Your task to perform on an android device: Clear the cart on ebay.com. Add bose soundlink mini to the cart on ebay.com Image 0: 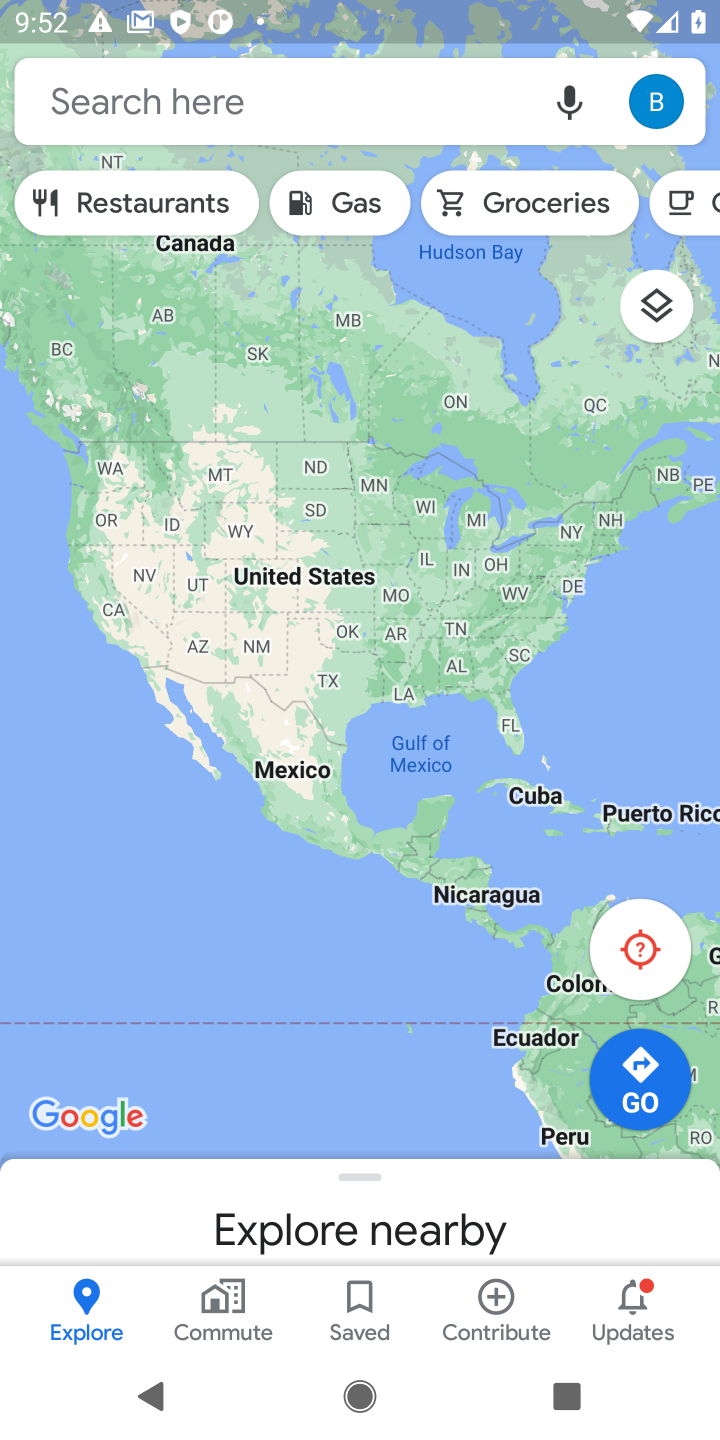
Step 0: press home button
Your task to perform on an android device: Clear the cart on ebay.com. Add bose soundlink mini to the cart on ebay.com Image 1: 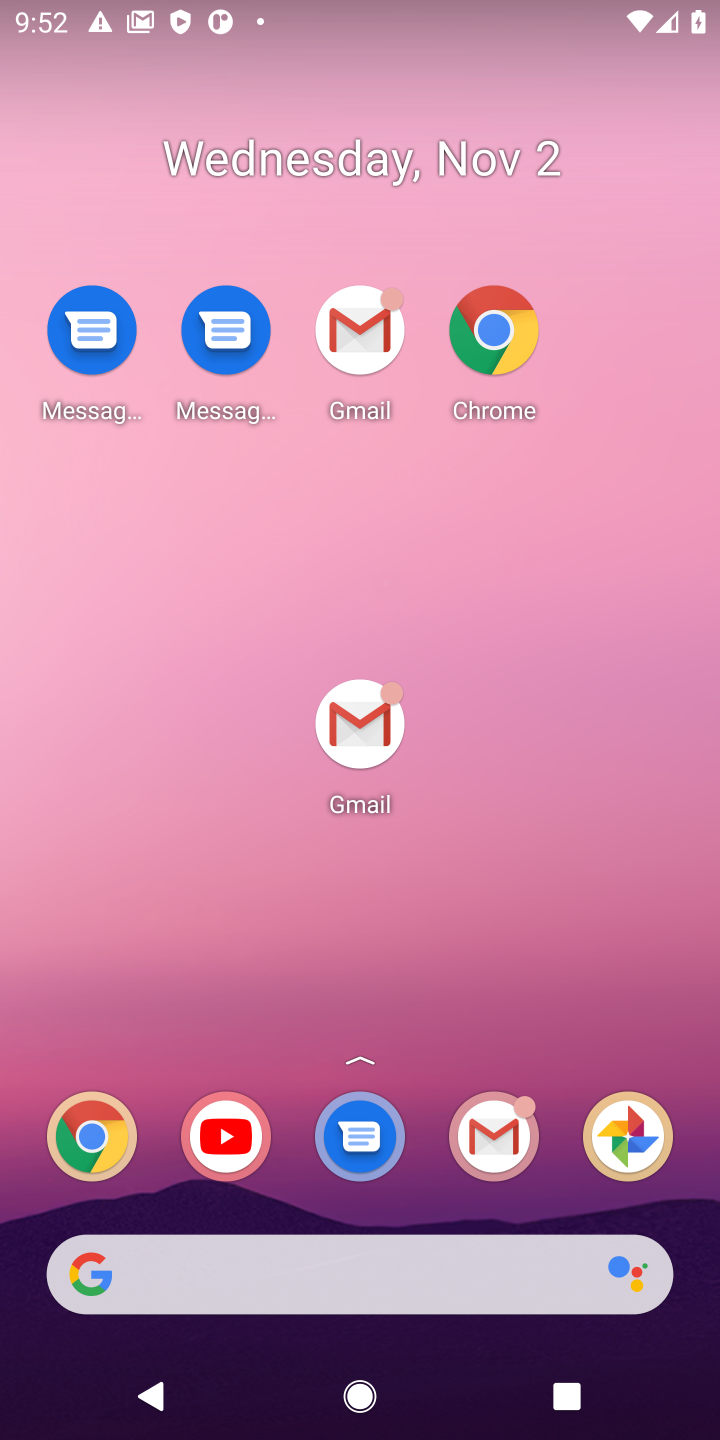
Step 1: drag from (273, 1183) to (268, 288)
Your task to perform on an android device: Clear the cart on ebay.com. Add bose soundlink mini to the cart on ebay.com Image 2: 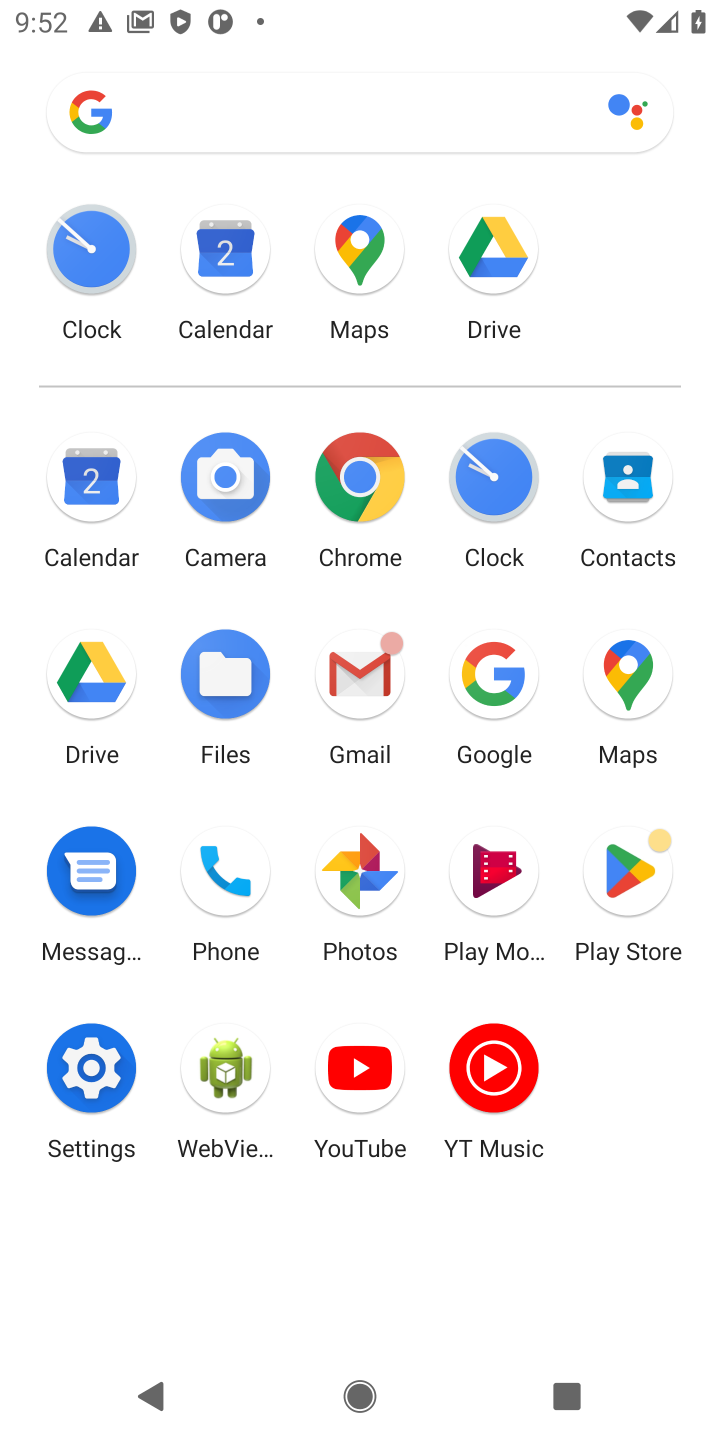
Step 2: click (467, 657)
Your task to perform on an android device: Clear the cart on ebay.com. Add bose soundlink mini to the cart on ebay.com Image 3: 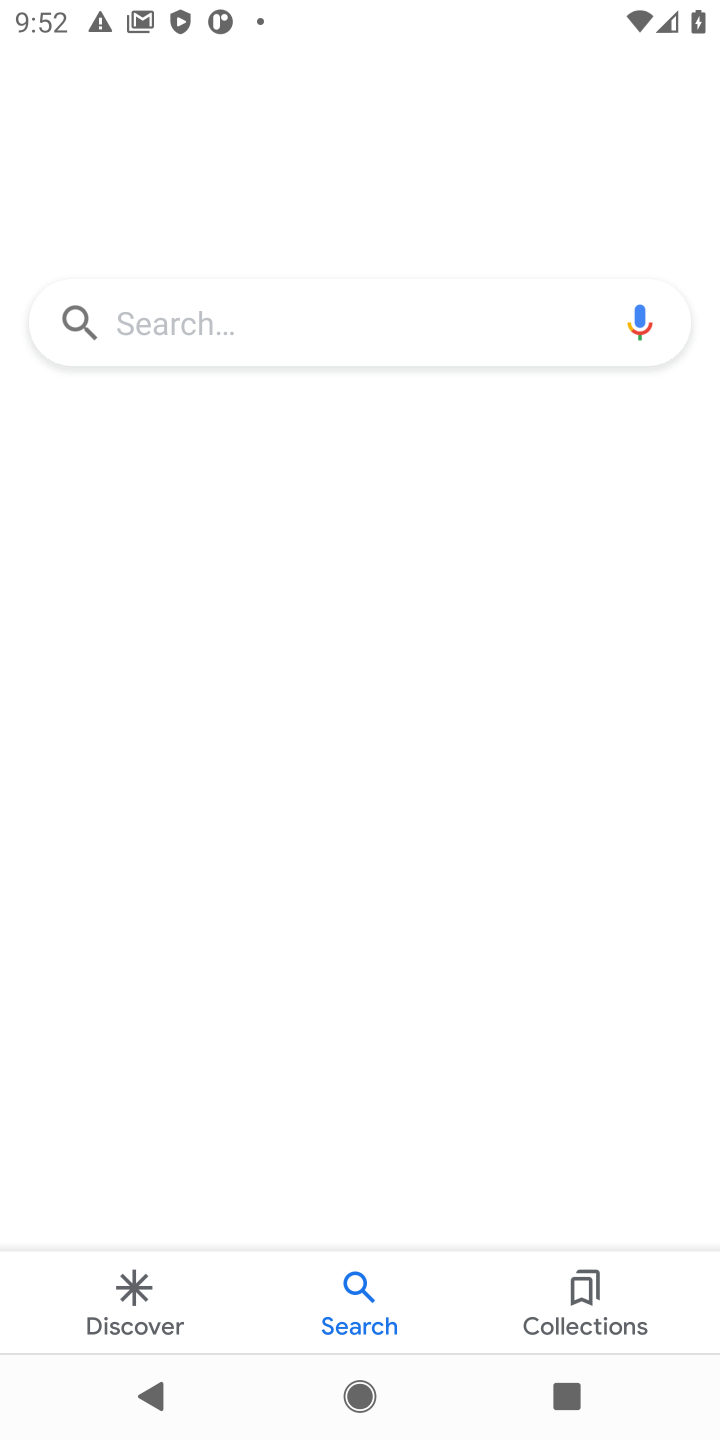
Step 3: click (347, 307)
Your task to perform on an android device: Clear the cart on ebay.com. Add bose soundlink mini to the cart on ebay.com Image 4: 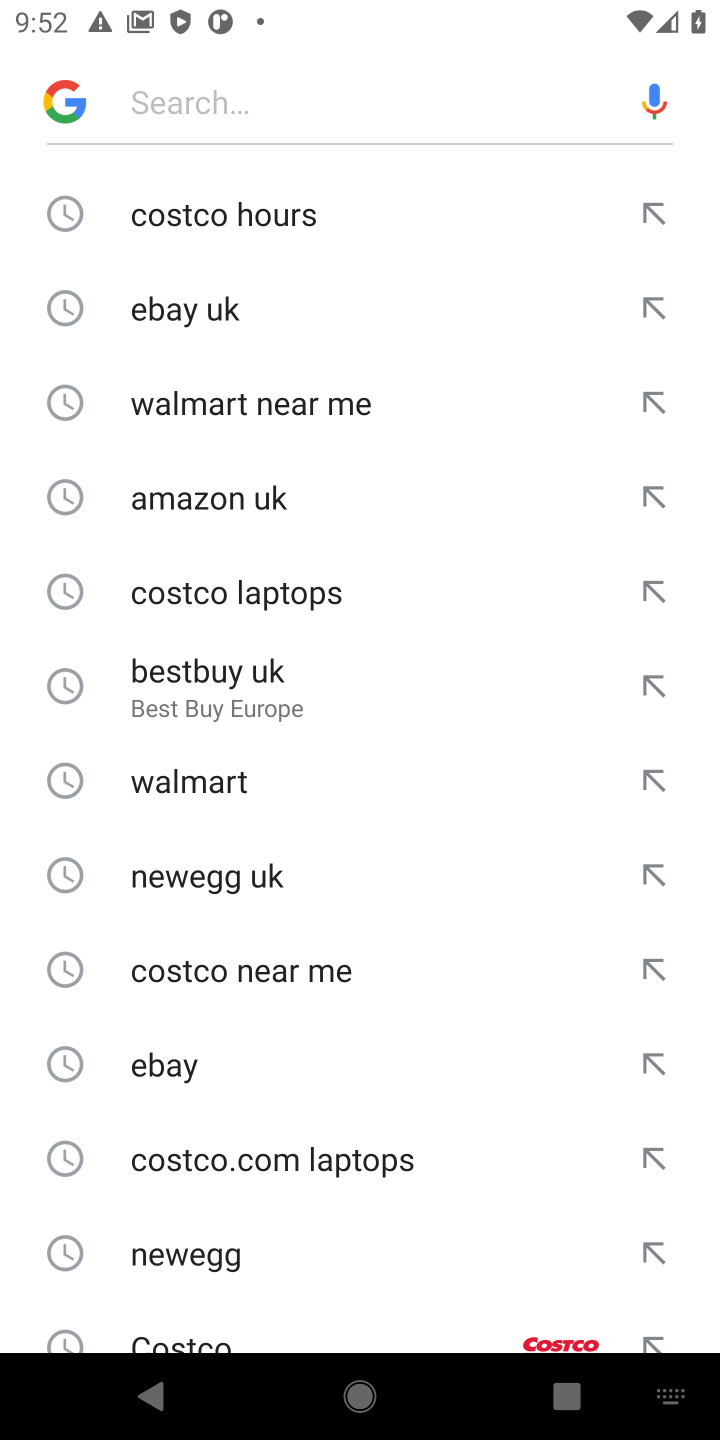
Step 4: click (164, 287)
Your task to perform on an android device: Clear the cart on ebay.com. Add bose soundlink mini to the cart on ebay.com Image 5: 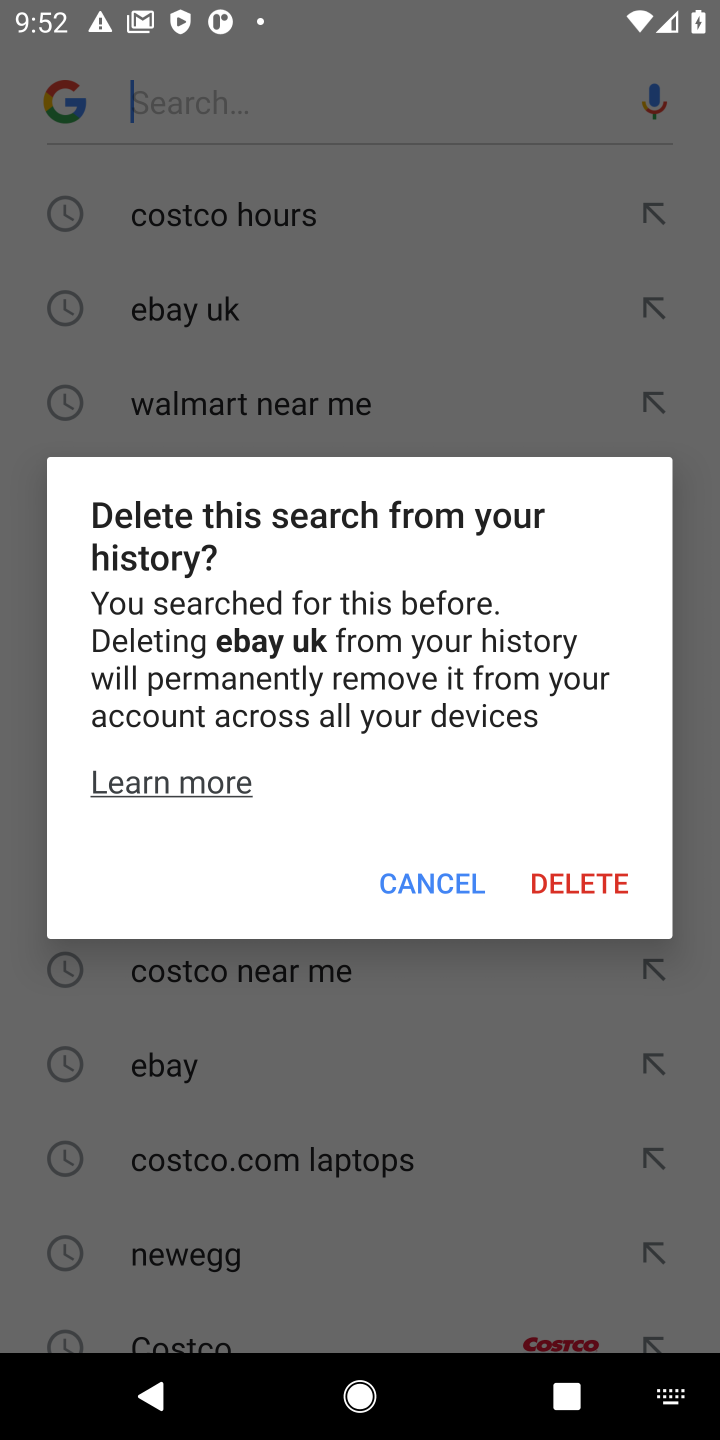
Step 5: click (487, 875)
Your task to perform on an android device: Clear the cart on ebay.com. Add bose soundlink mini to the cart on ebay.com Image 6: 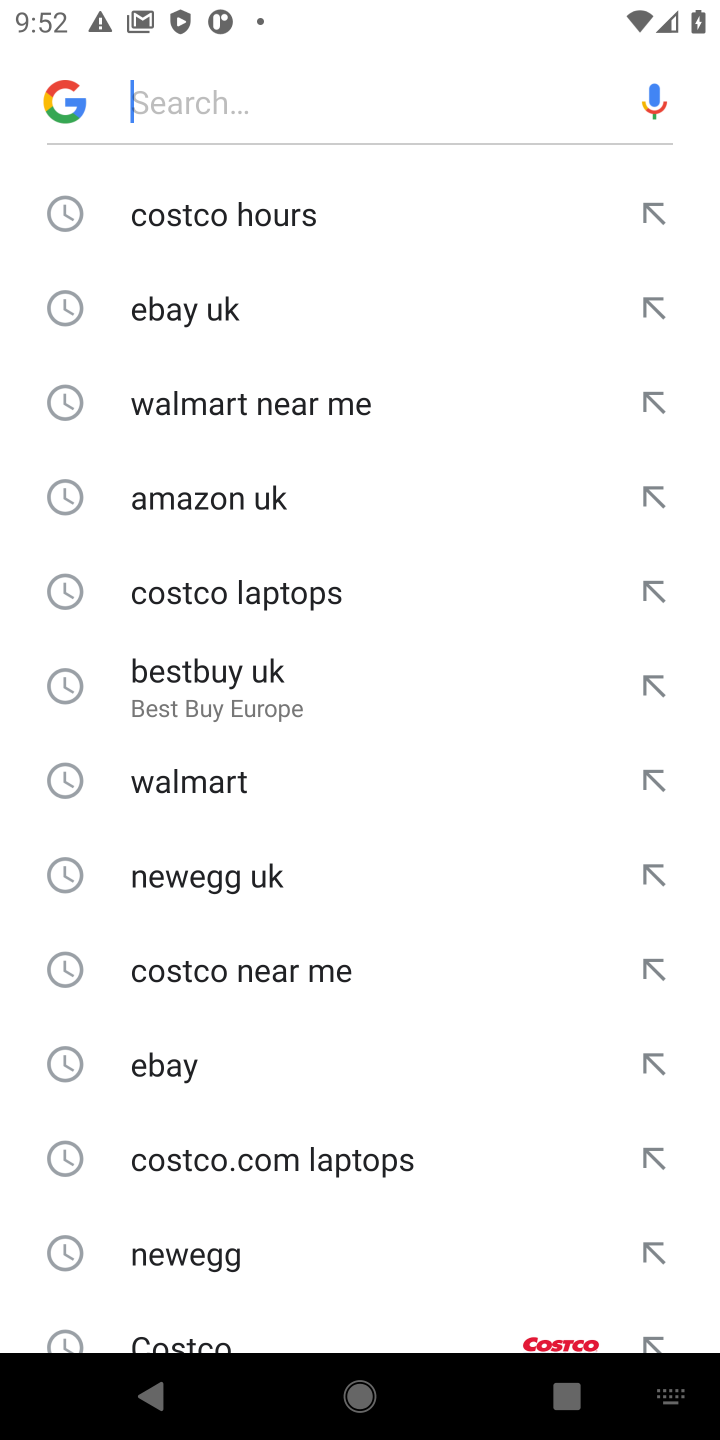
Step 6: click (293, 107)
Your task to perform on an android device: Clear the cart on ebay.com. Add bose soundlink mini to the cart on ebay.com Image 7: 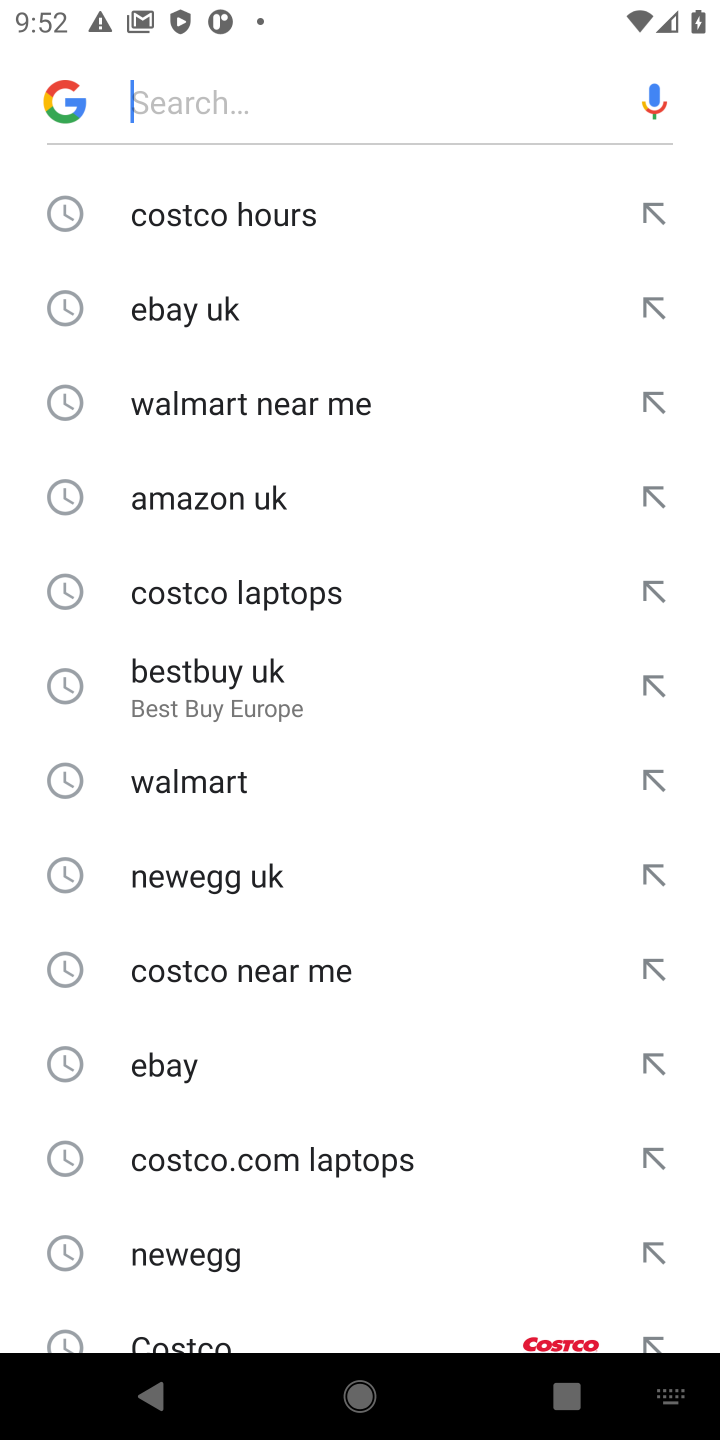
Step 7: type "ebay "
Your task to perform on an android device: Clear the cart on ebay.com. Add bose soundlink mini to the cart on ebay.com Image 8: 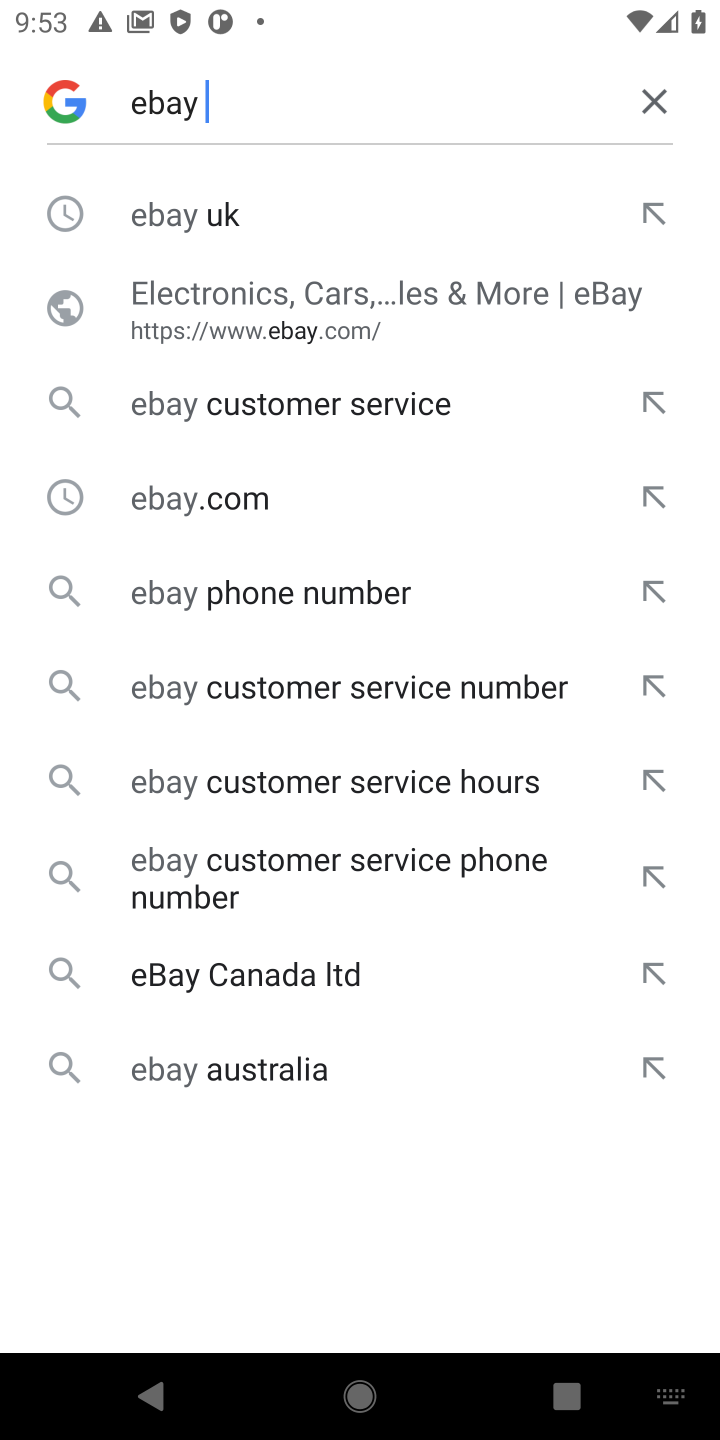
Step 8: click (214, 498)
Your task to perform on an android device: Clear the cart on ebay.com. Add bose soundlink mini to the cart on ebay.com Image 9: 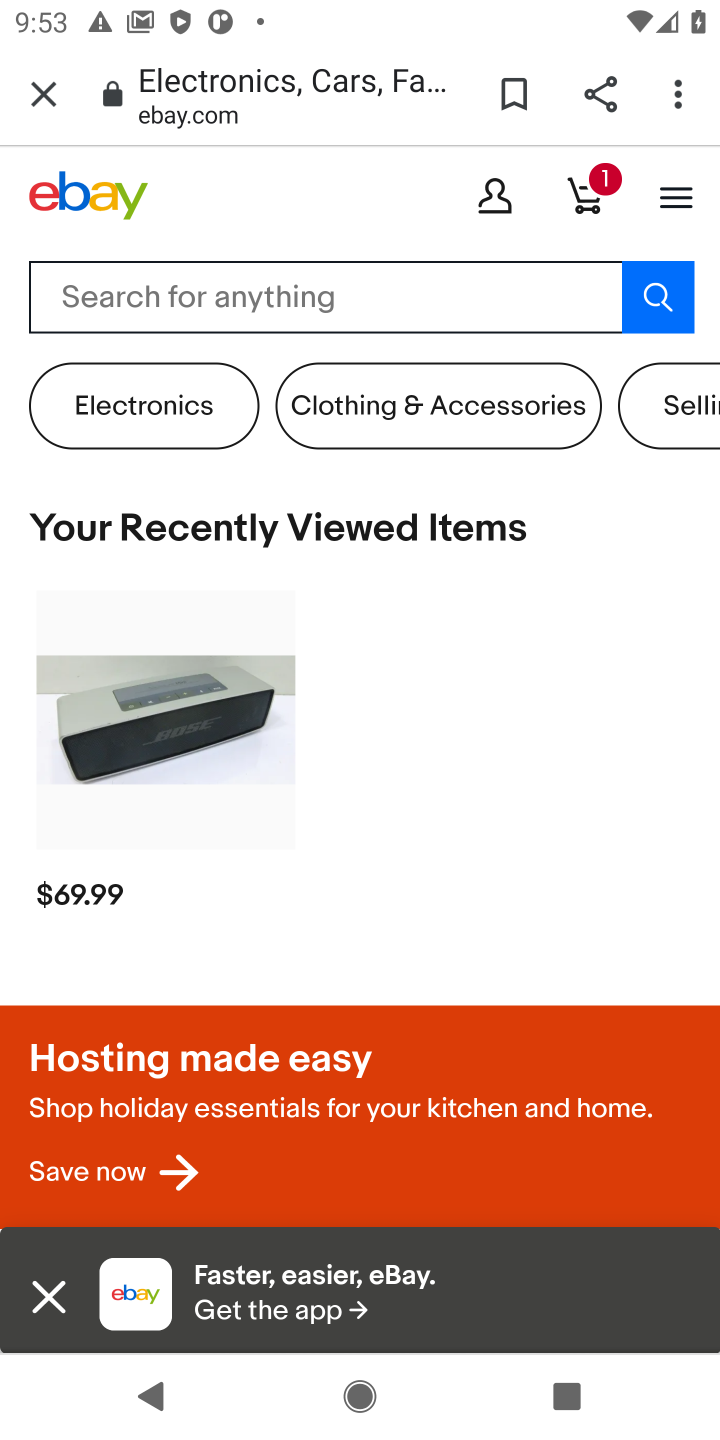
Step 9: click (401, 286)
Your task to perform on an android device: Clear the cart on ebay.com. Add bose soundlink mini to the cart on ebay.com Image 10: 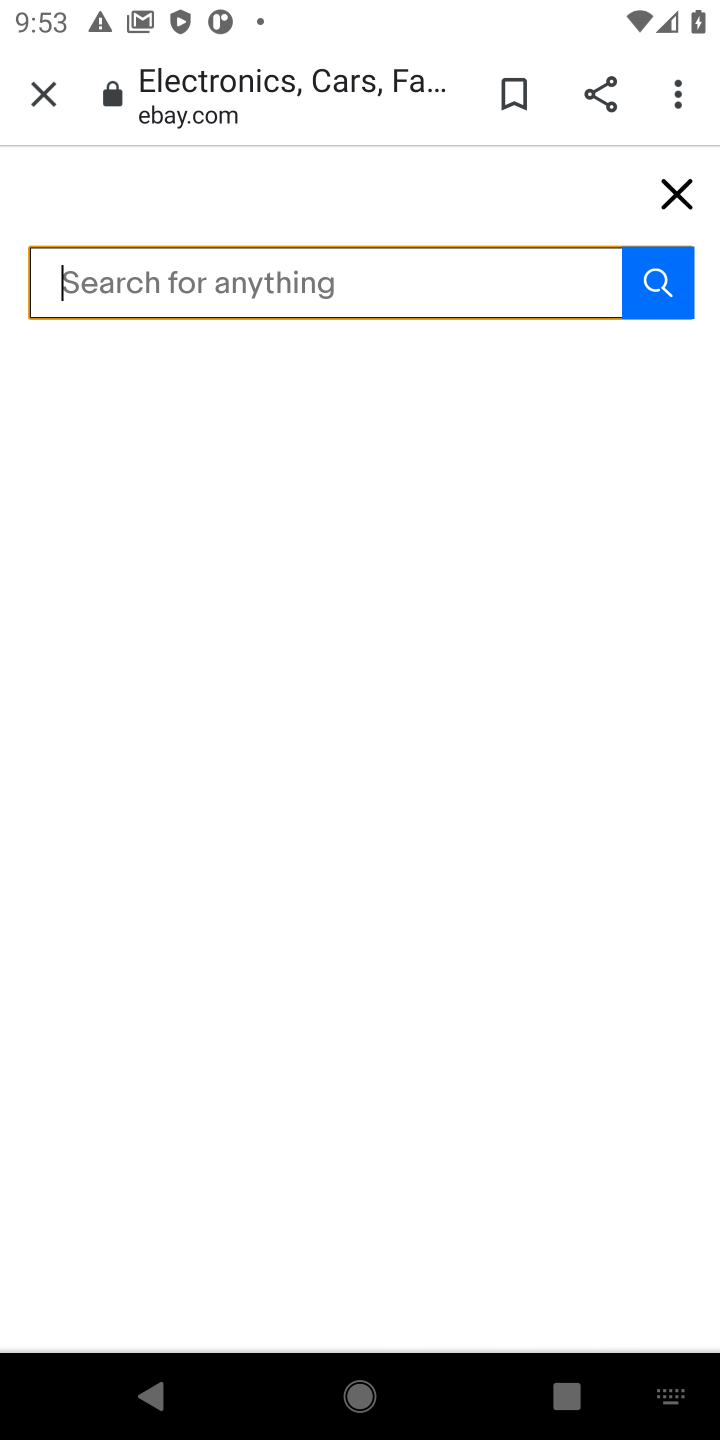
Step 10: type " bose soundlink  "
Your task to perform on an android device: Clear the cart on ebay.com. Add bose soundlink mini to the cart on ebay.com Image 11: 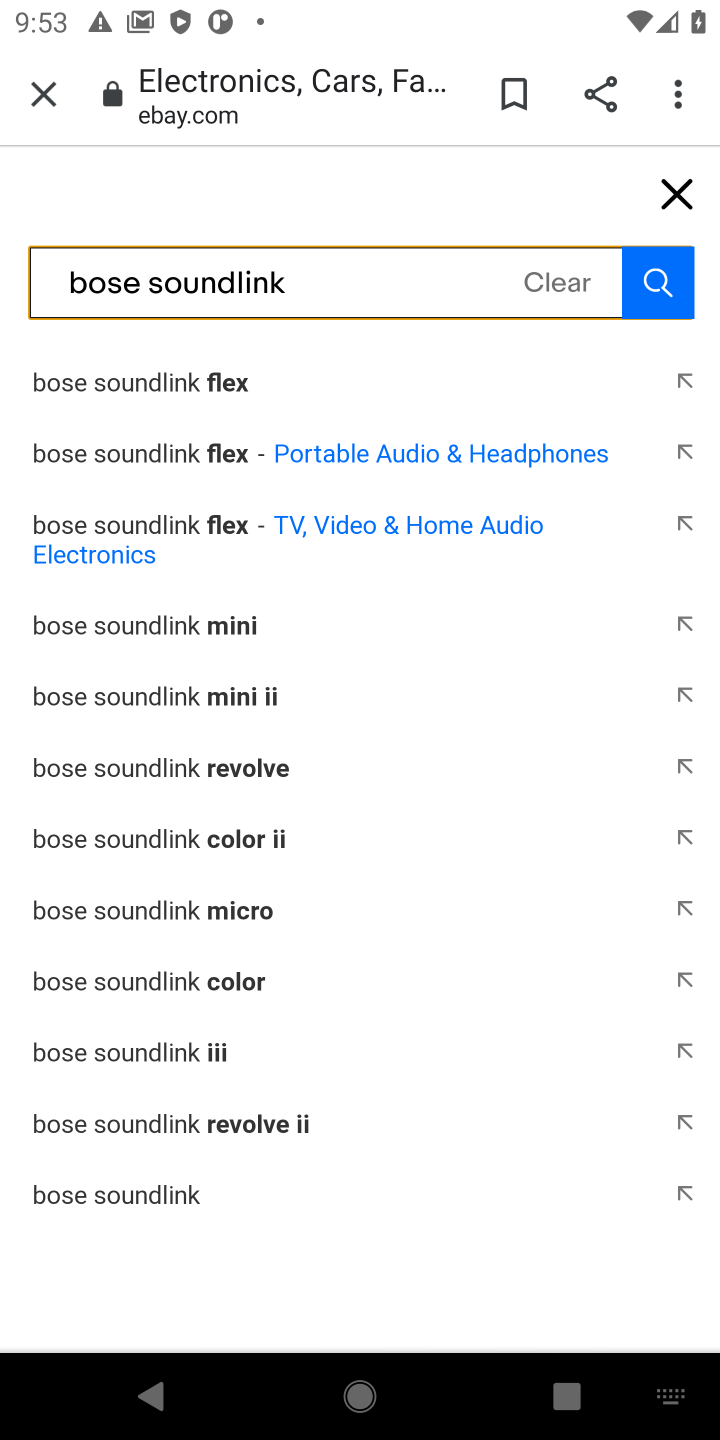
Step 11: click (131, 377)
Your task to perform on an android device: Clear the cart on ebay.com. Add bose soundlink mini to the cart on ebay.com Image 12: 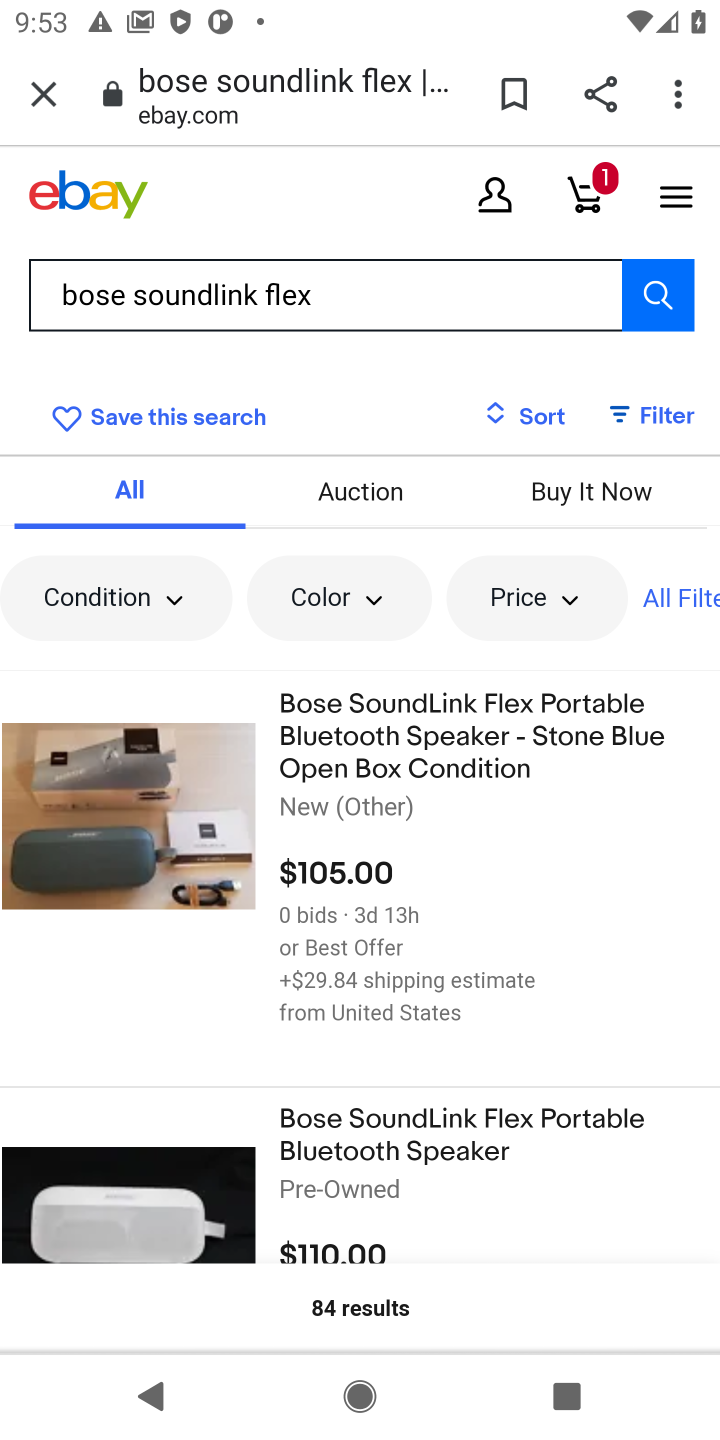
Step 12: click (365, 702)
Your task to perform on an android device: Clear the cart on ebay.com. Add bose soundlink mini to the cart on ebay.com Image 13: 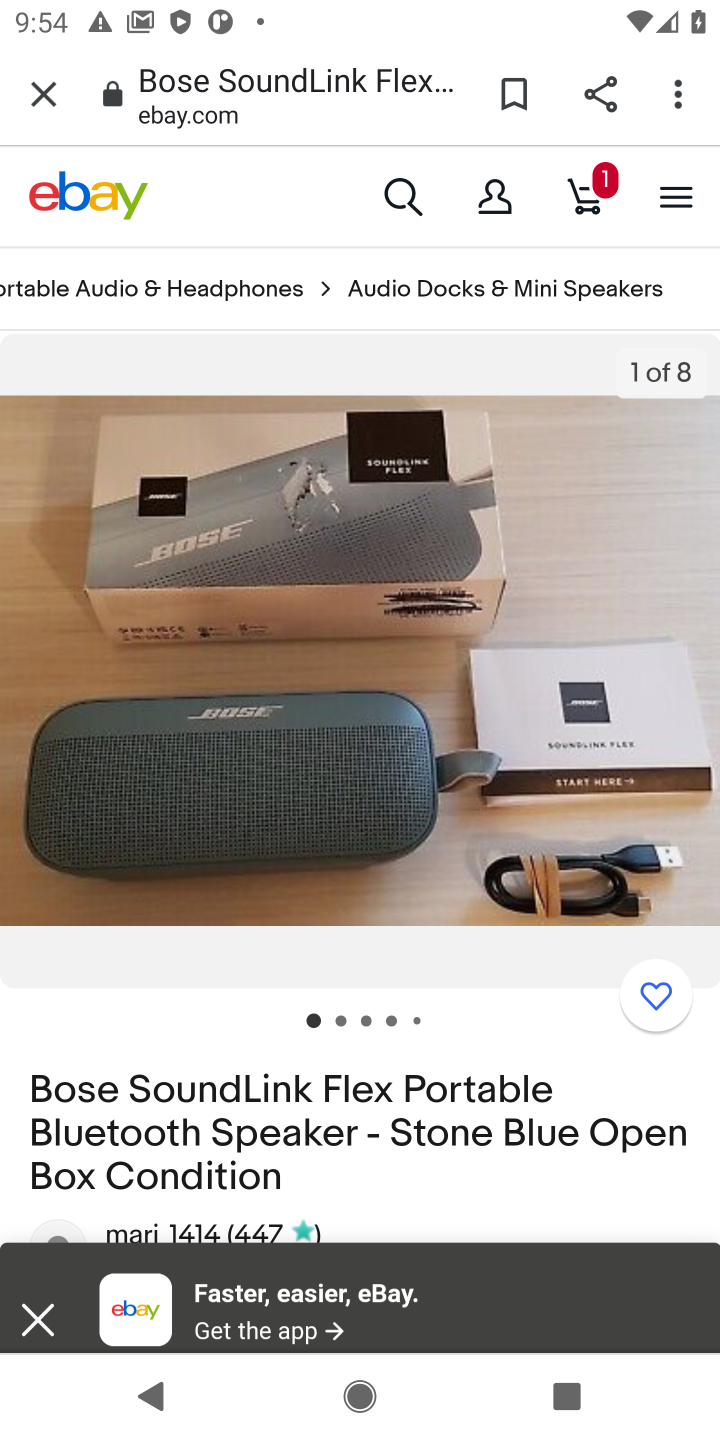
Step 13: drag from (288, 1152) to (254, 430)
Your task to perform on an android device: Clear the cart on ebay.com. Add bose soundlink mini to the cart on ebay.com Image 14: 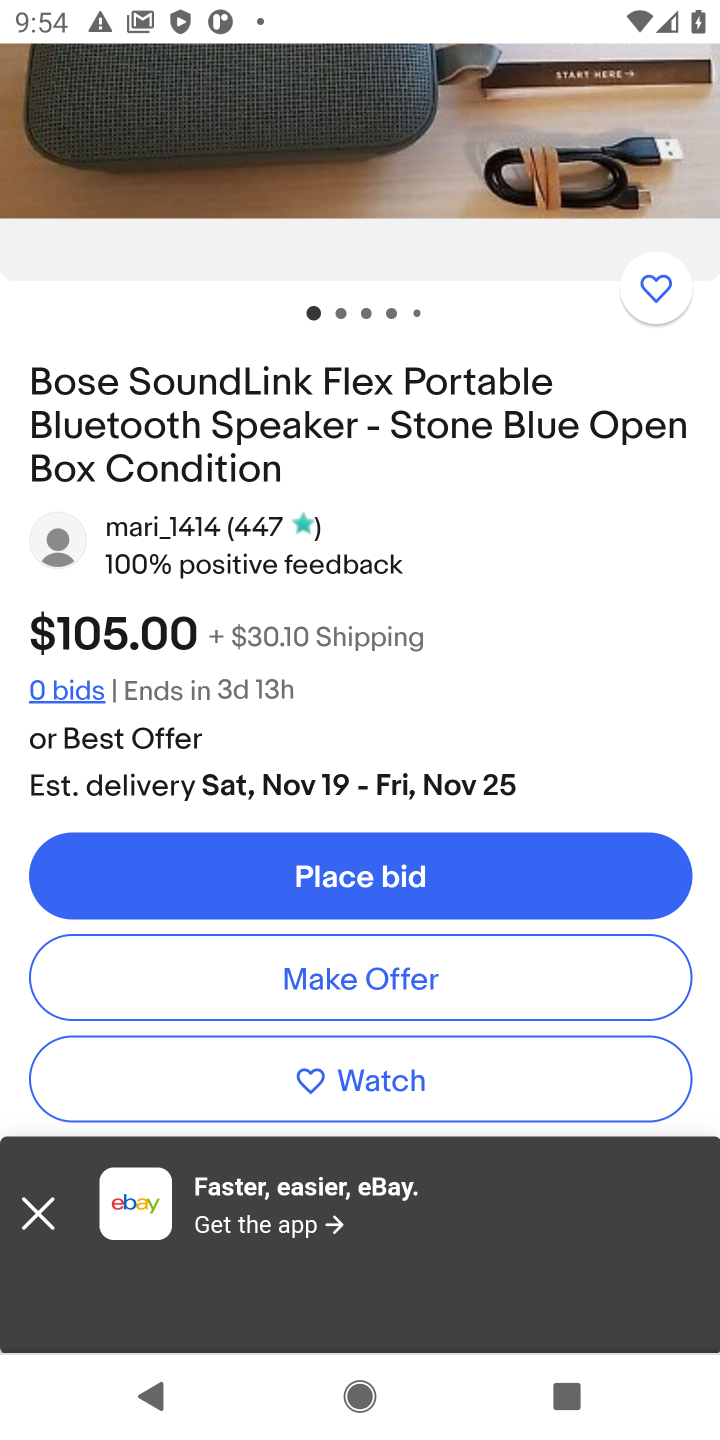
Step 14: click (15, 1216)
Your task to perform on an android device: Clear the cart on ebay.com. Add bose soundlink mini to the cart on ebay.com Image 15: 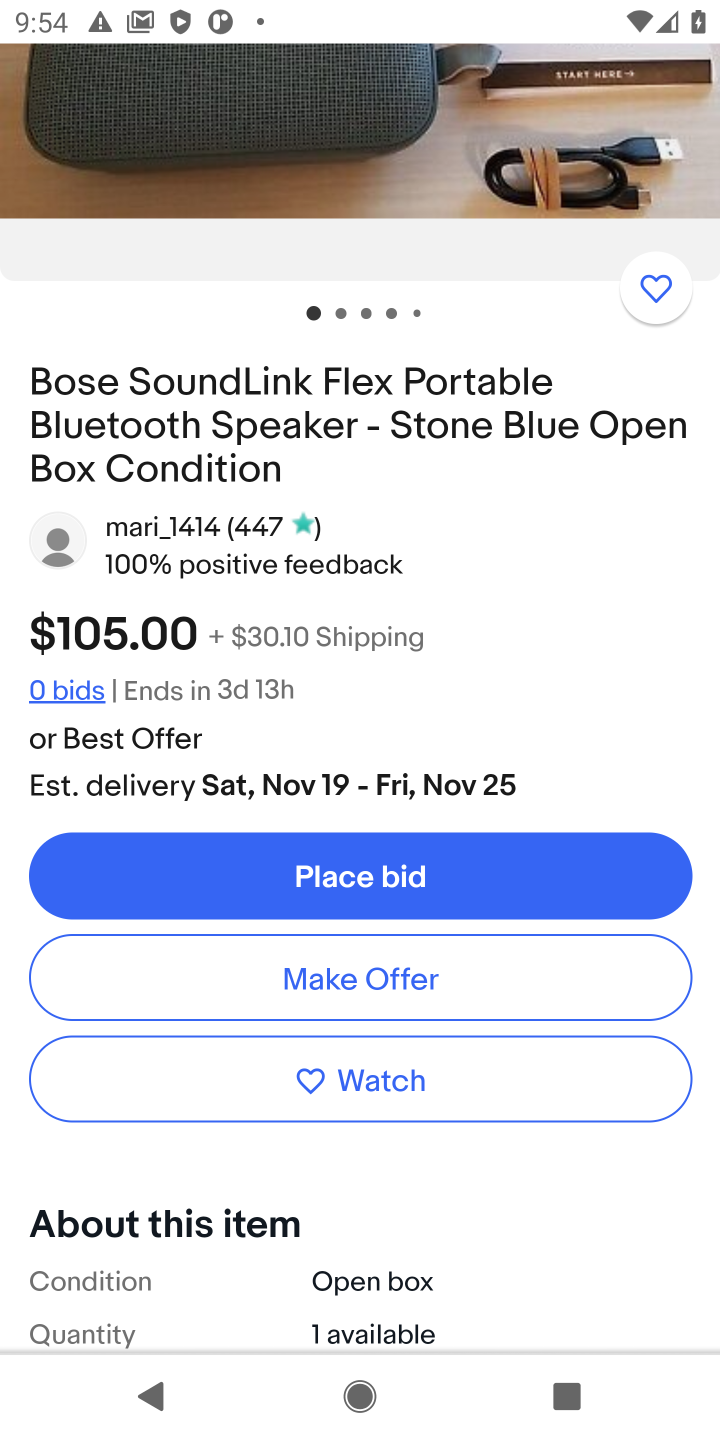
Step 15: drag from (420, 494) to (438, 1154)
Your task to perform on an android device: Clear the cart on ebay.com. Add bose soundlink mini to the cart on ebay.com Image 16: 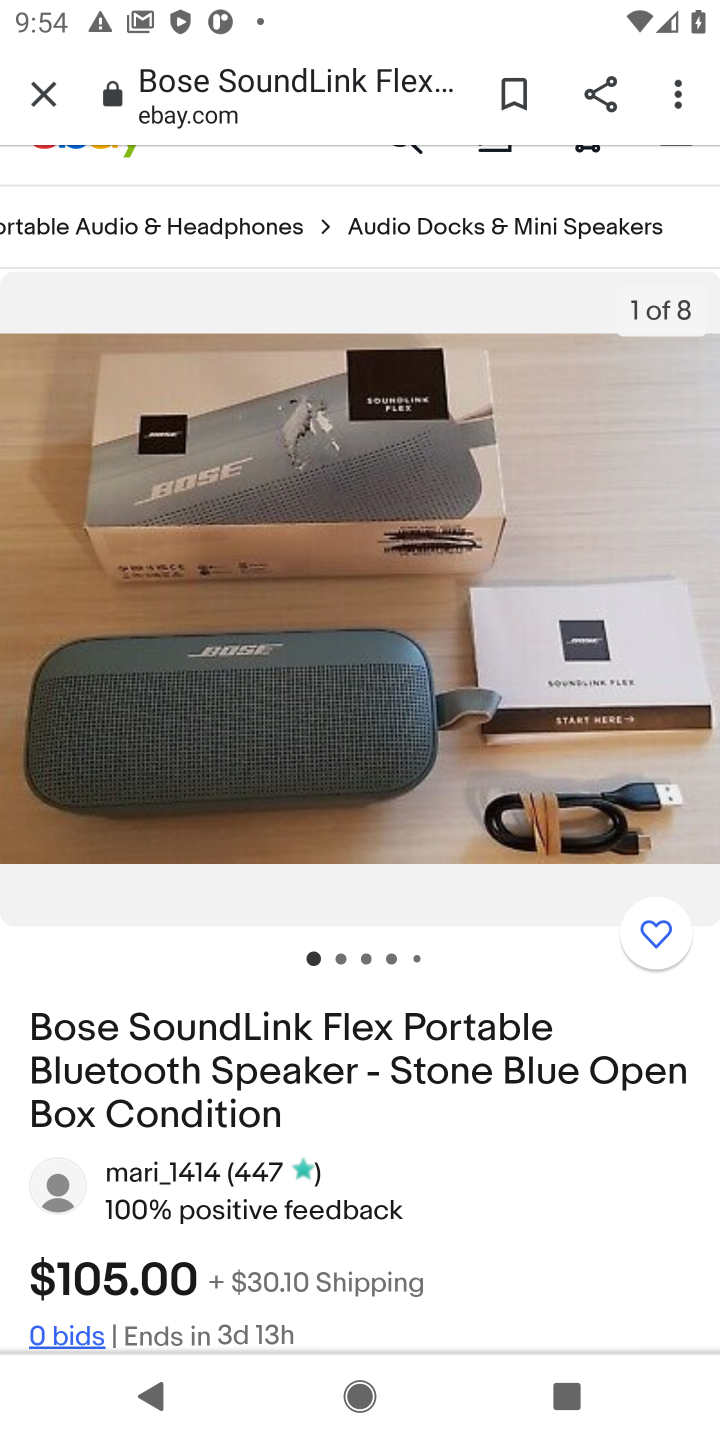
Step 16: drag from (510, 1230) to (481, 362)
Your task to perform on an android device: Clear the cart on ebay.com. Add bose soundlink mini to the cart on ebay.com Image 17: 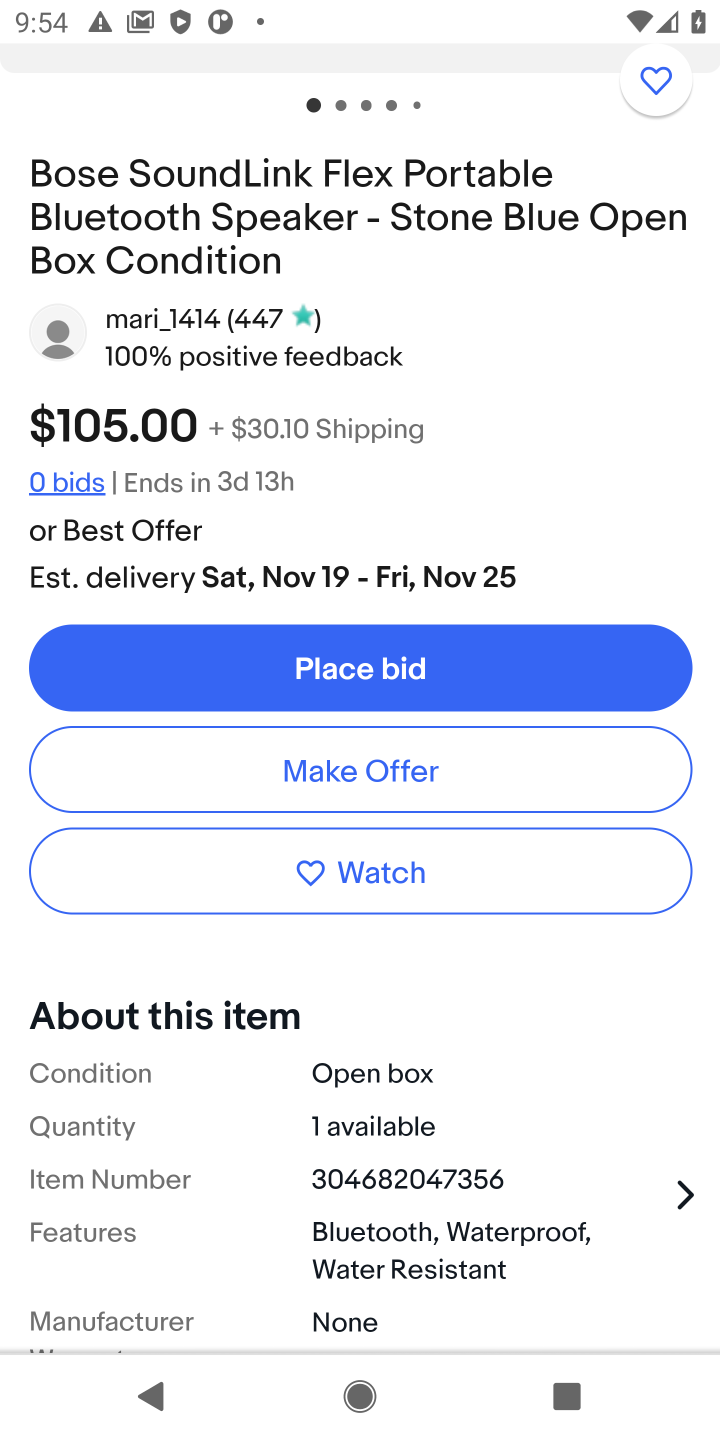
Step 17: drag from (506, 1147) to (500, 399)
Your task to perform on an android device: Clear the cart on ebay.com. Add bose soundlink mini to the cart on ebay.com Image 18: 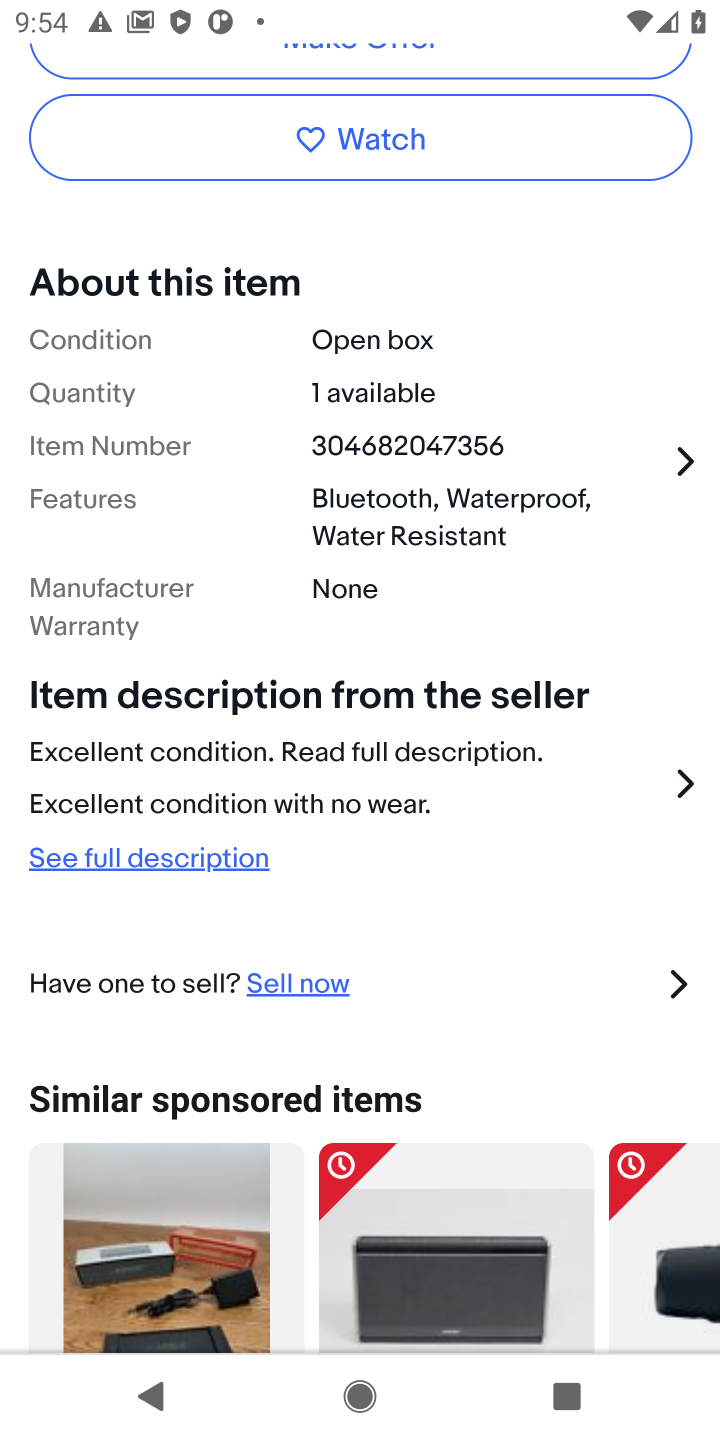
Step 18: drag from (316, 372) to (341, 668)
Your task to perform on an android device: Clear the cart on ebay.com. Add bose soundlink mini to the cart on ebay.com Image 19: 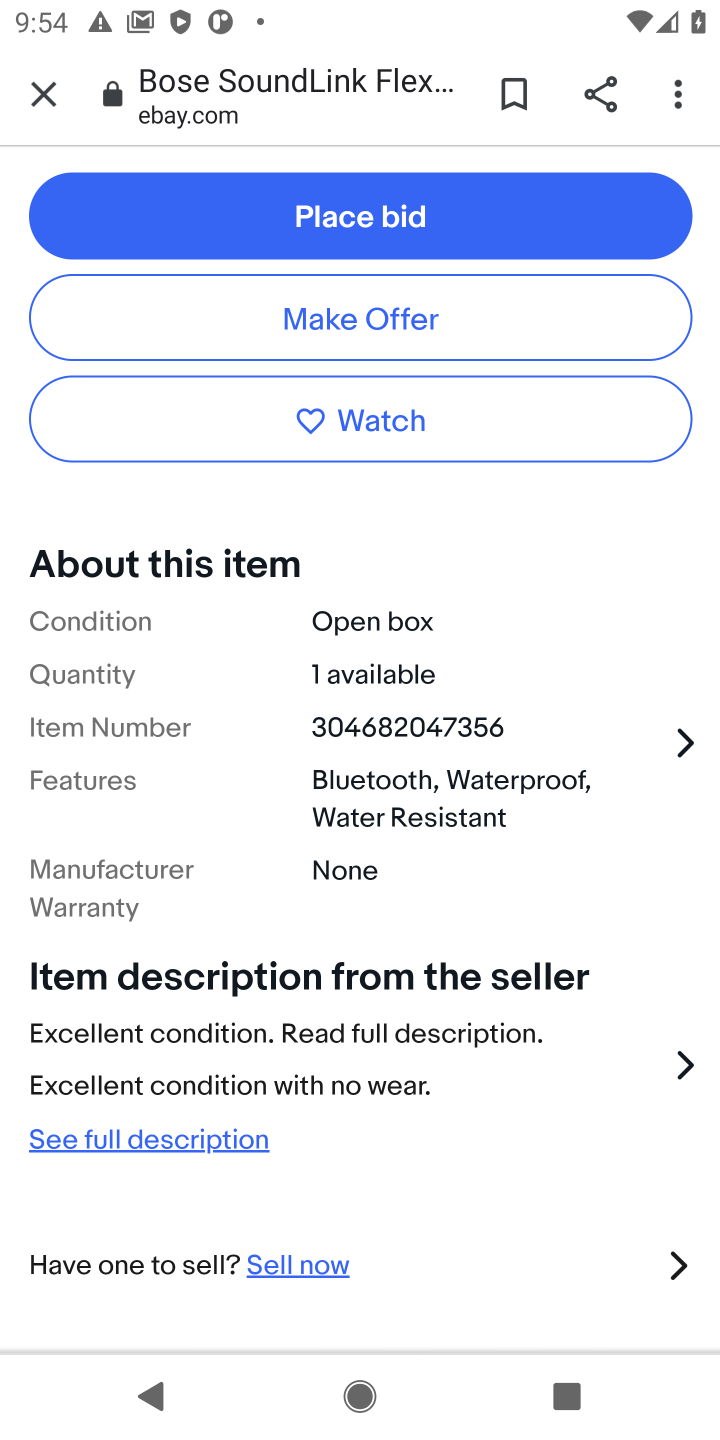
Step 19: press back button
Your task to perform on an android device: Clear the cart on ebay.com. Add bose soundlink mini to the cart on ebay.com Image 20: 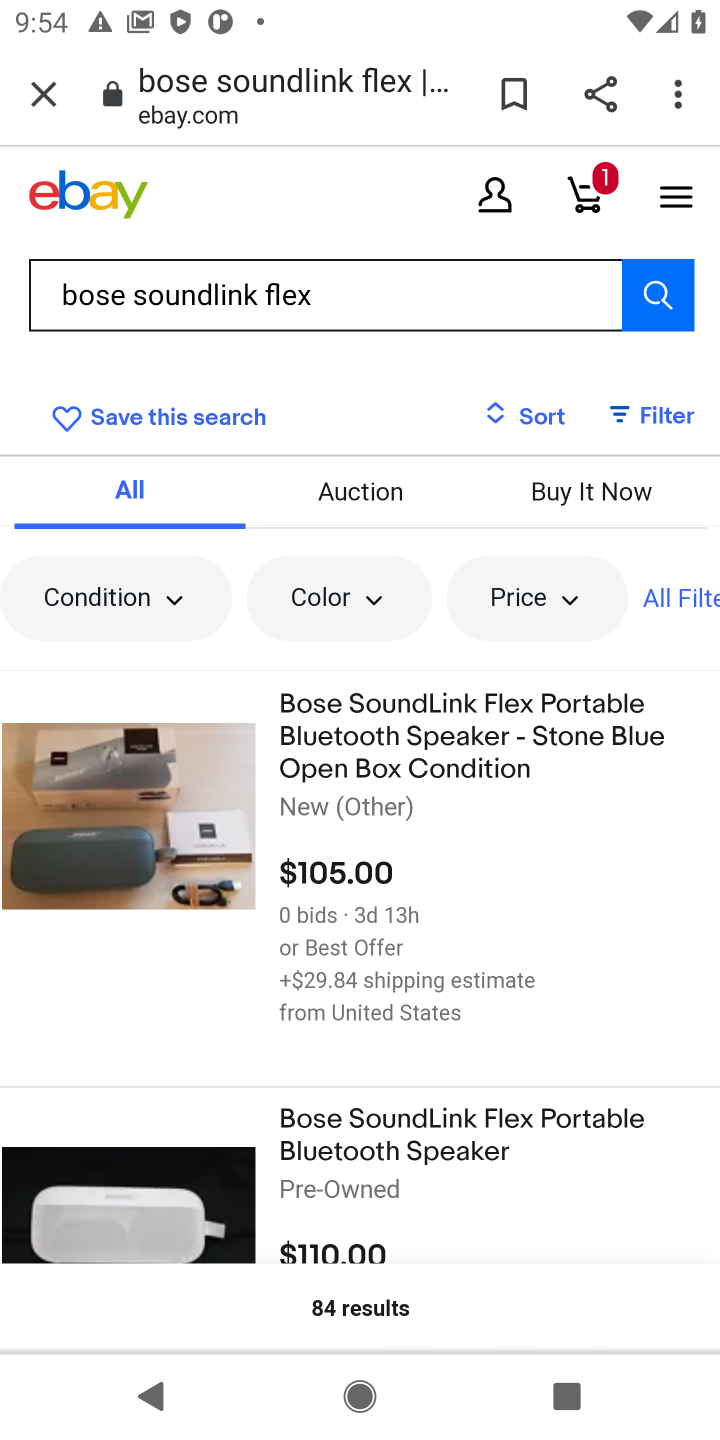
Step 20: drag from (493, 1231) to (505, 758)
Your task to perform on an android device: Clear the cart on ebay.com. Add bose soundlink mini to the cart on ebay.com Image 21: 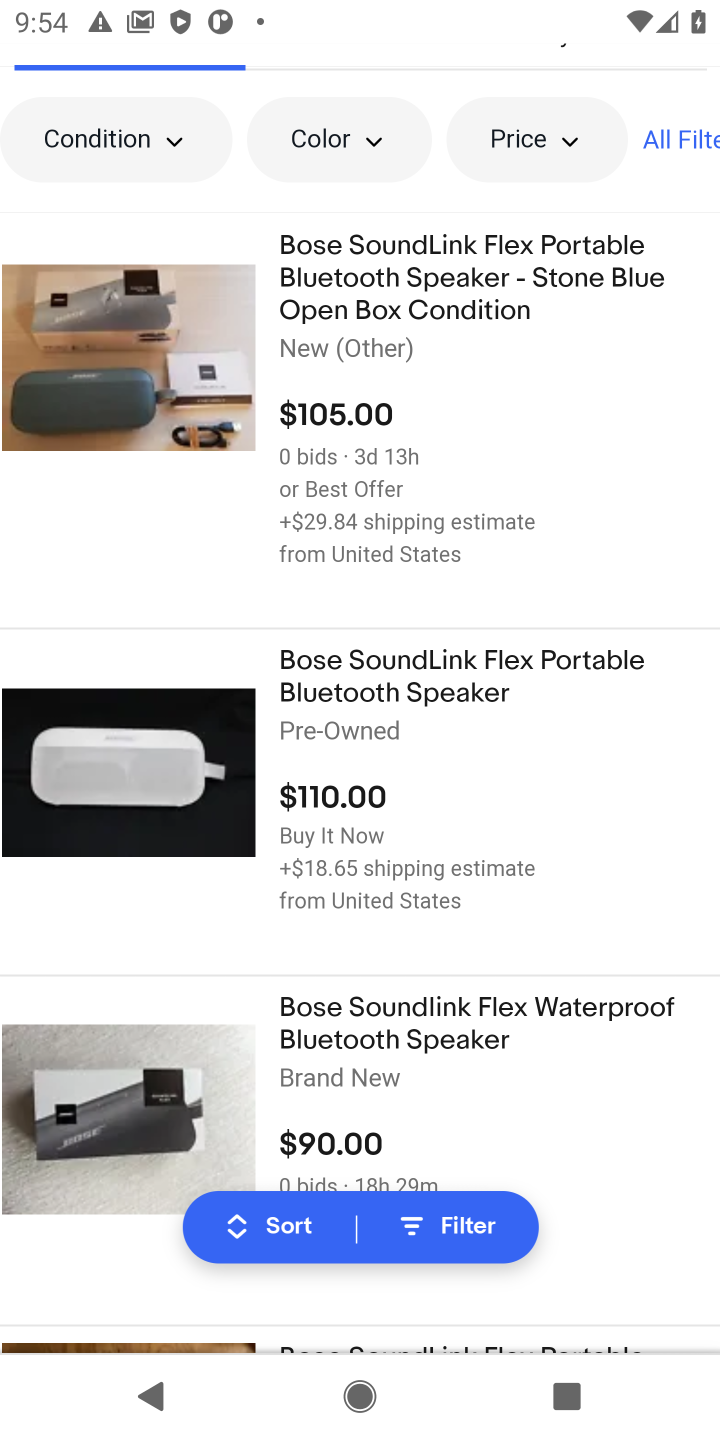
Step 21: click (371, 683)
Your task to perform on an android device: Clear the cart on ebay.com. Add bose soundlink mini to the cart on ebay.com Image 22: 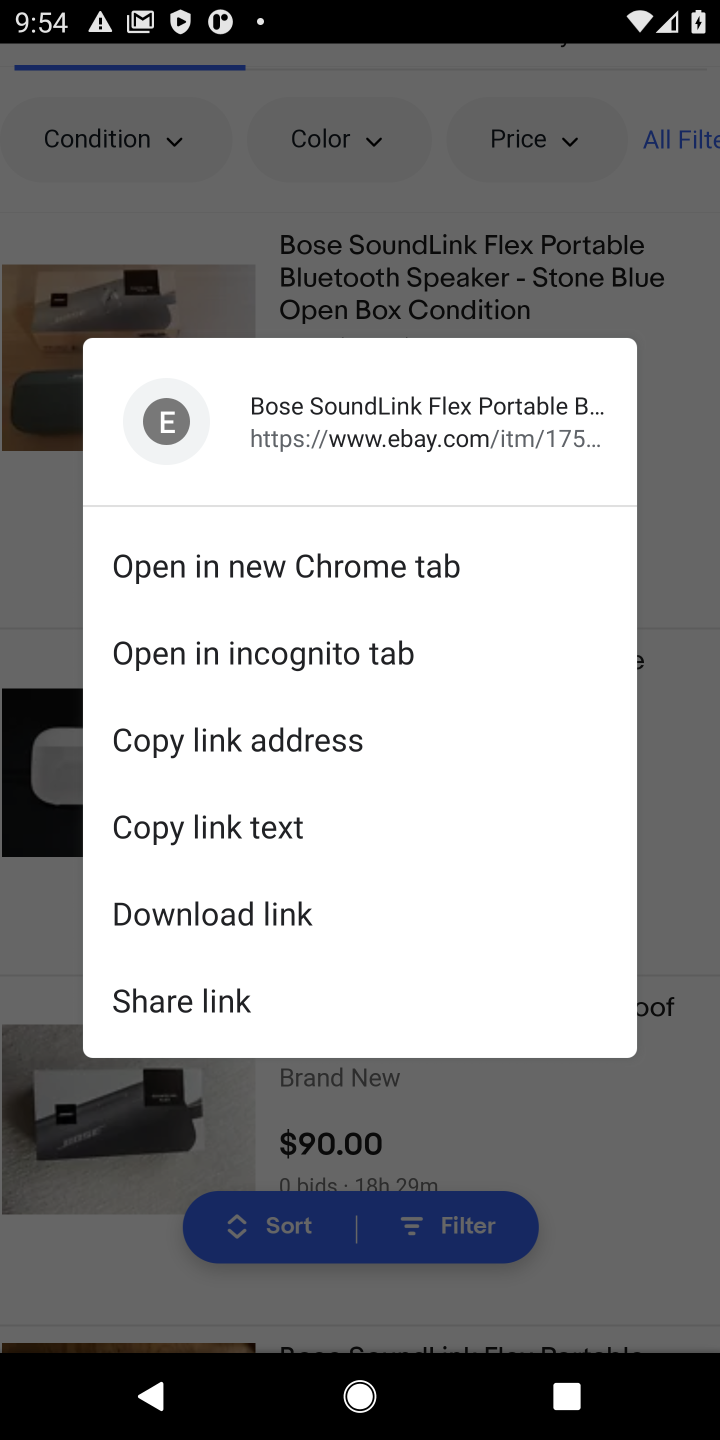
Step 22: click (625, 695)
Your task to perform on an android device: Clear the cart on ebay.com. Add bose soundlink mini to the cart on ebay.com Image 23: 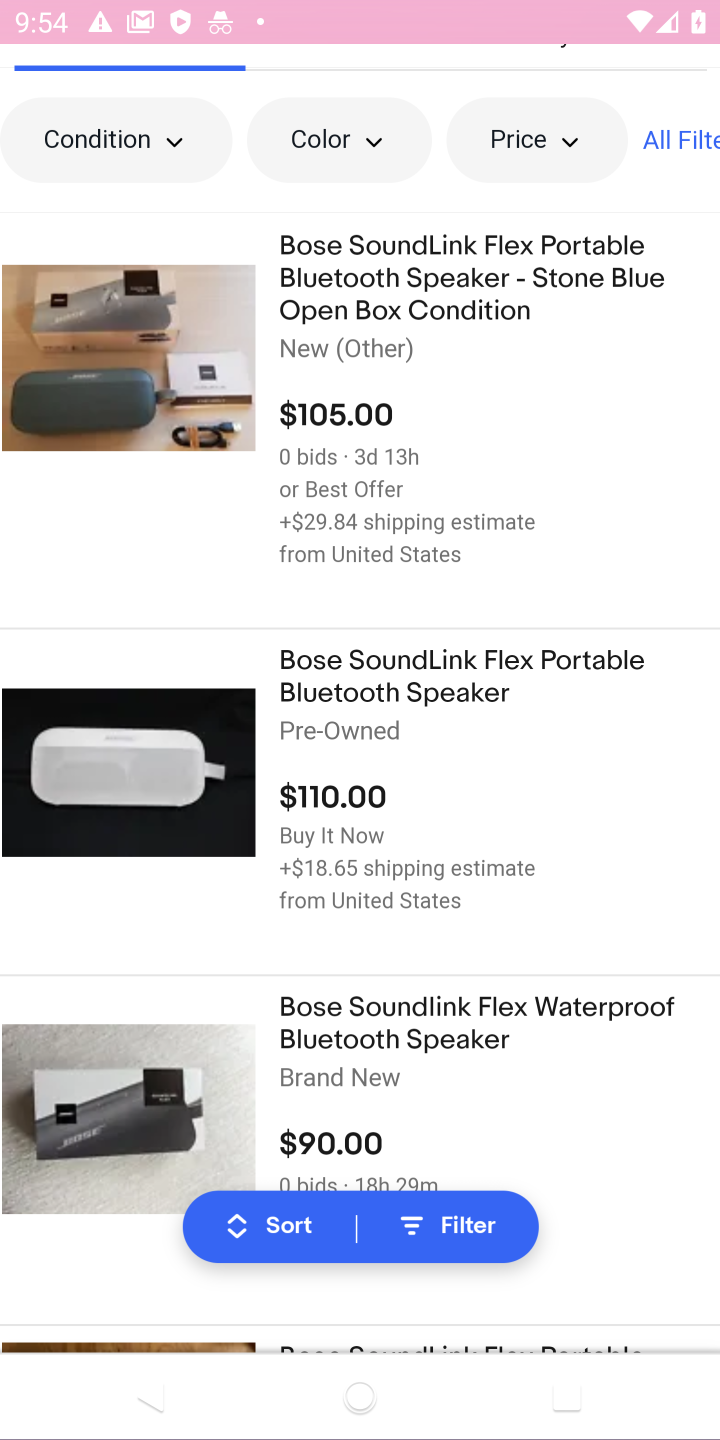
Step 23: click (251, 715)
Your task to perform on an android device: Clear the cart on ebay.com. Add bose soundlink mini to the cart on ebay.com Image 24: 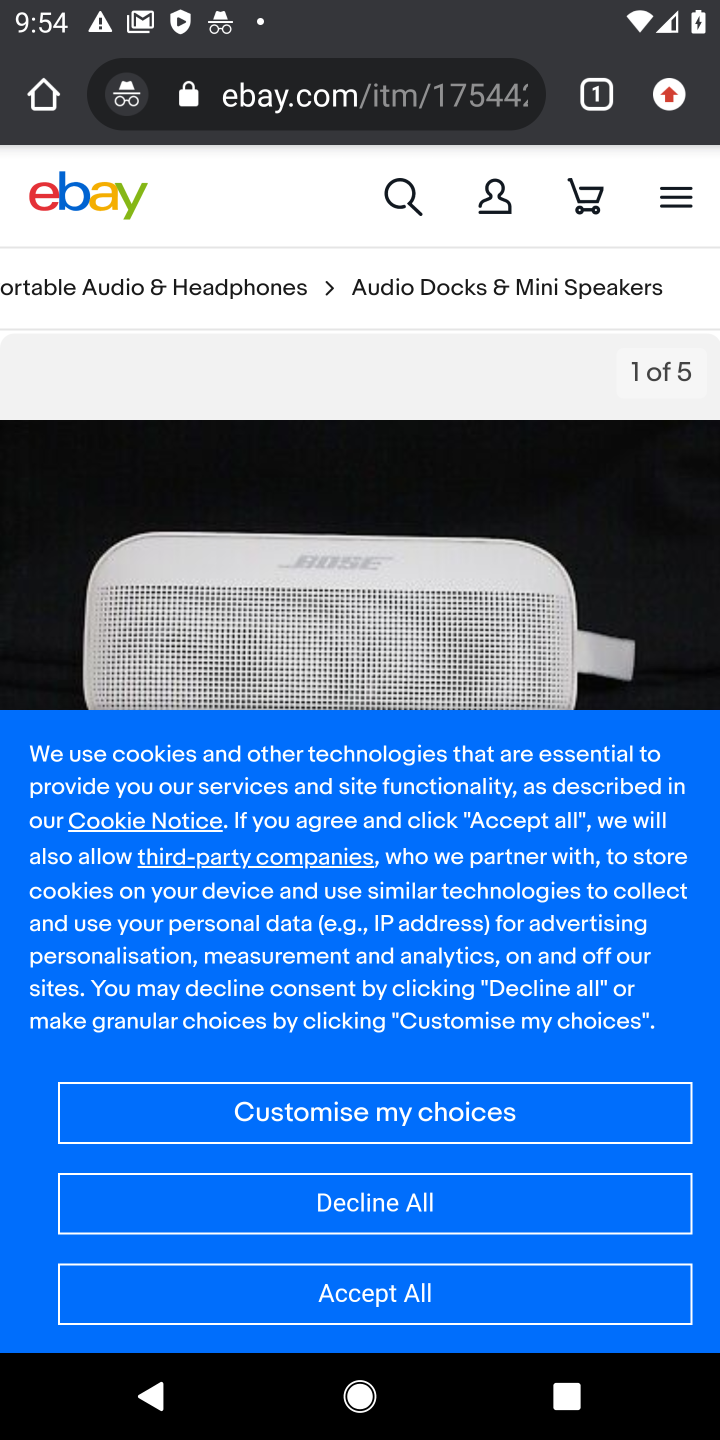
Step 24: drag from (504, 1059) to (484, 673)
Your task to perform on an android device: Clear the cart on ebay.com. Add bose soundlink mini to the cart on ebay.com Image 25: 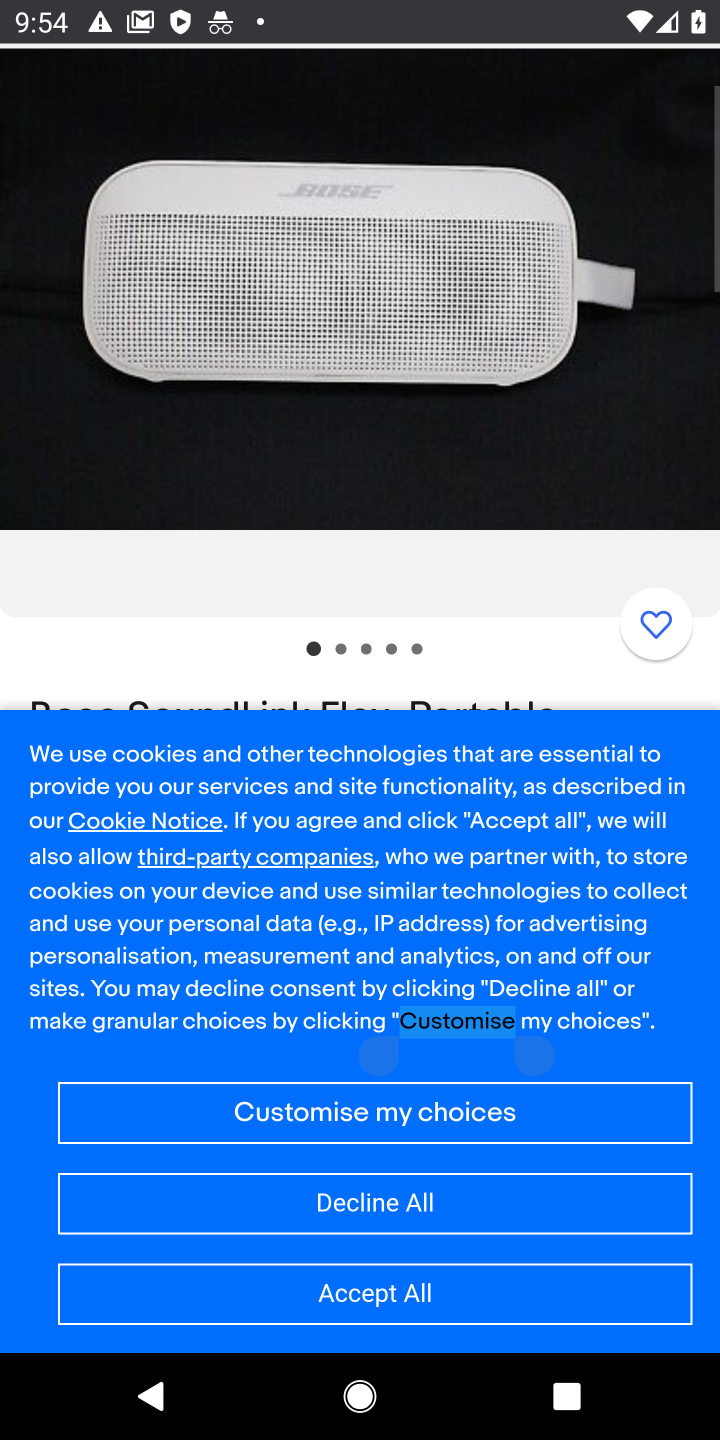
Step 25: click (360, 1284)
Your task to perform on an android device: Clear the cart on ebay.com. Add bose soundlink mini to the cart on ebay.com Image 26: 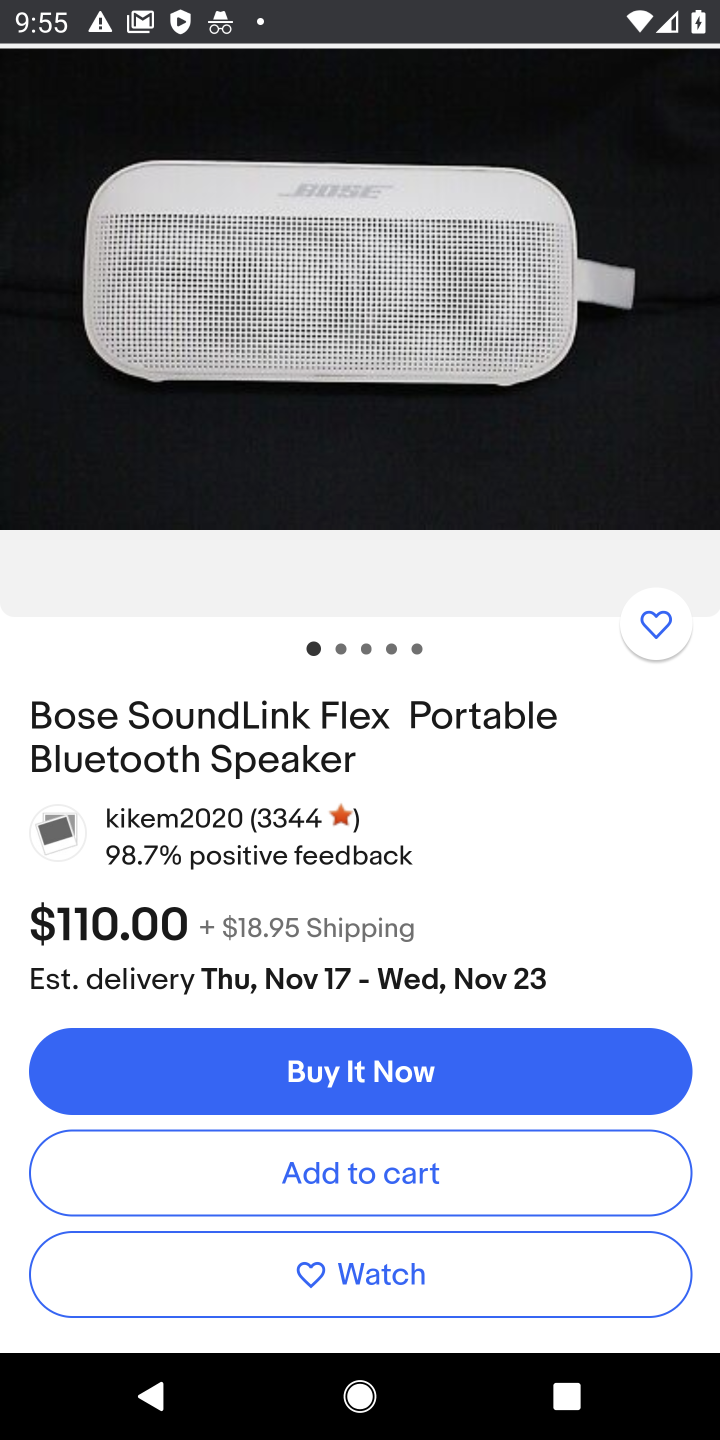
Step 26: click (385, 1168)
Your task to perform on an android device: Clear the cart on ebay.com. Add bose soundlink mini to the cart on ebay.com Image 27: 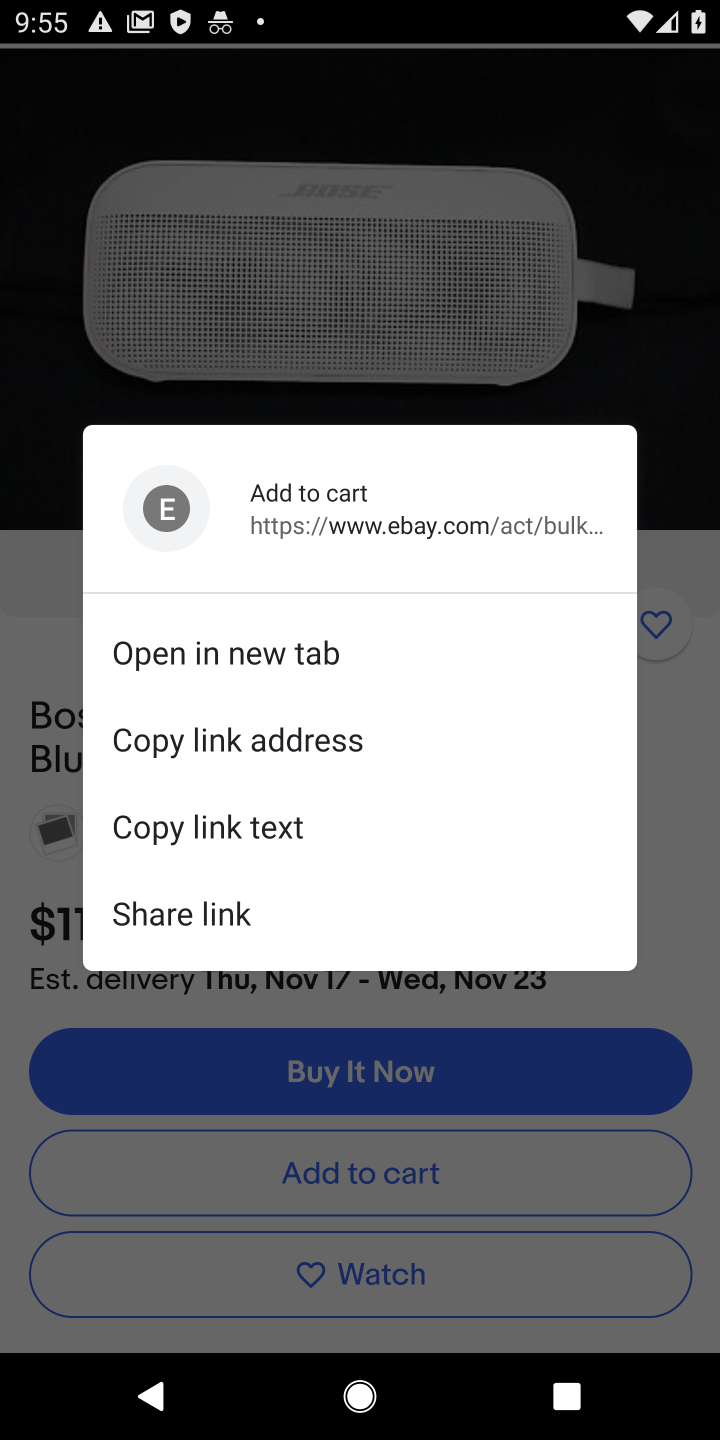
Step 27: click (377, 1138)
Your task to perform on an android device: Clear the cart on ebay.com. Add bose soundlink mini to the cart on ebay.com Image 28: 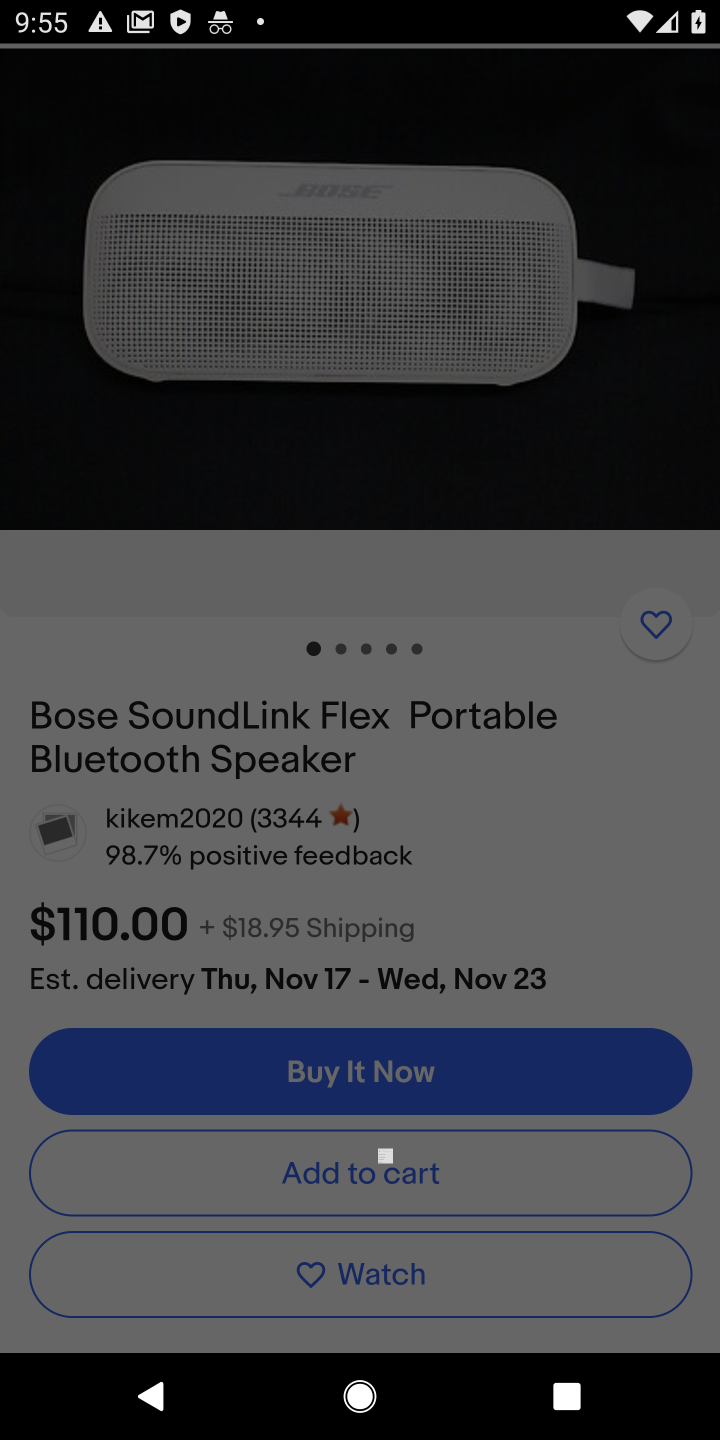
Step 28: click (377, 1138)
Your task to perform on an android device: Clear the cart on ebay.com. Add bose soundlink mini to the cart on ebay.com Image 29: 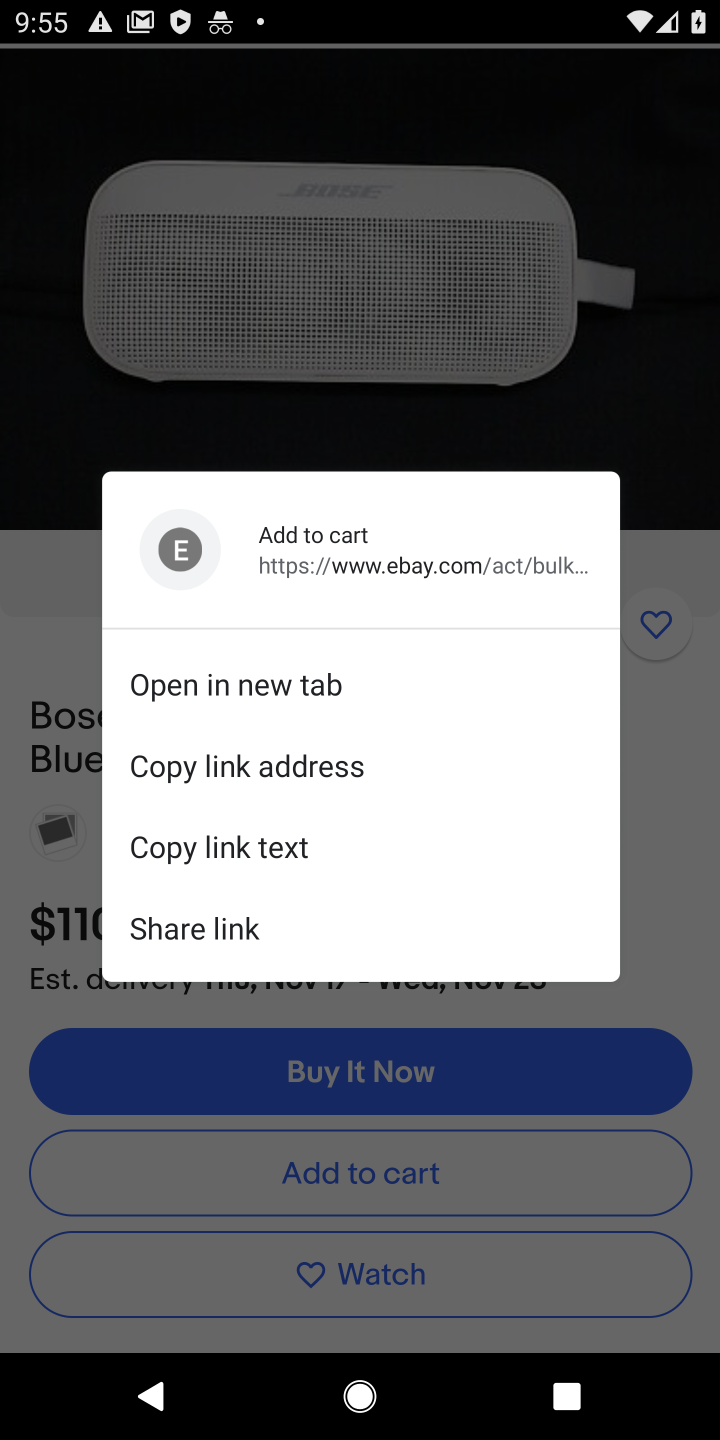
Step 29: click (377, 1156)
Your task to perform on an android device: Clear the cart on ebay.com. Add bose soundlink mini to the cart on ebay.com Image 30: 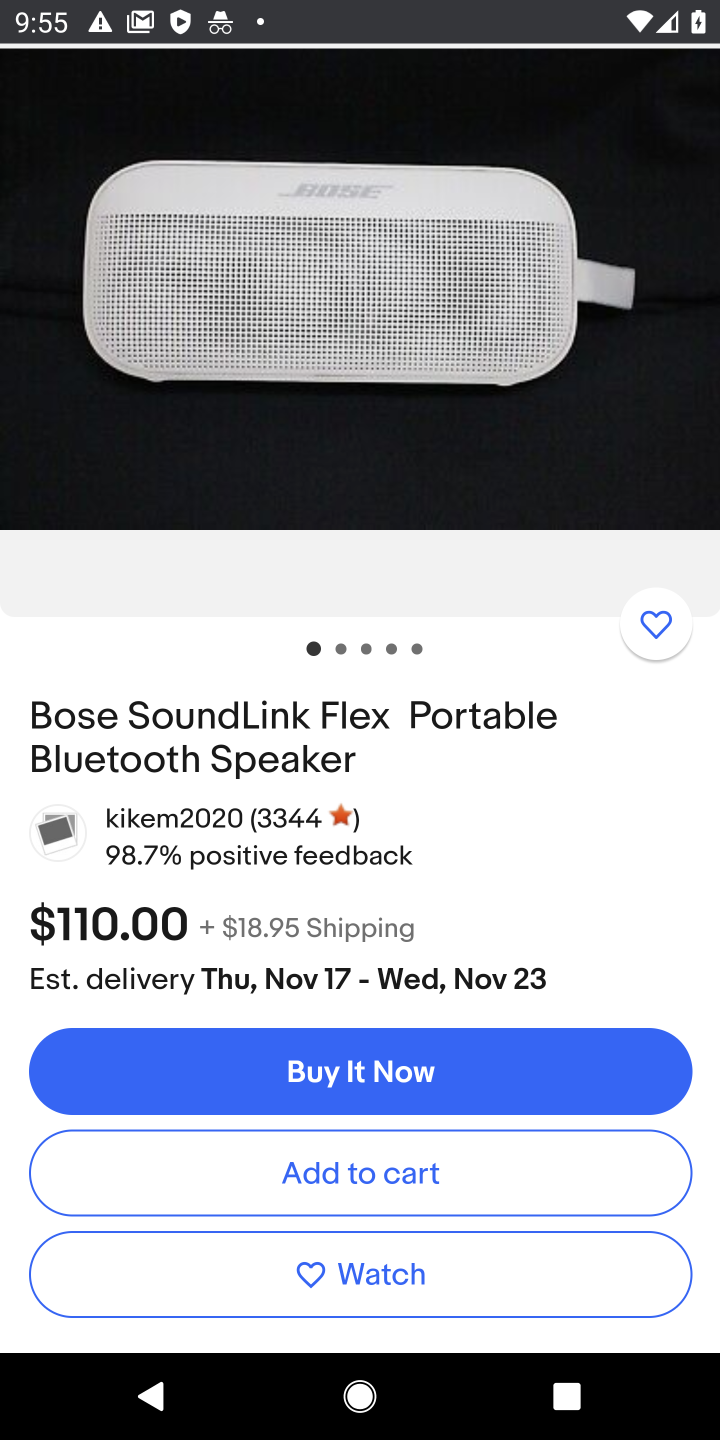
Step 30: click (315, 1168)
Your task to perform on an android device: Clear the cart on ebay.com. Add bose soundlink mini to the cart on ebay.com Image 31: 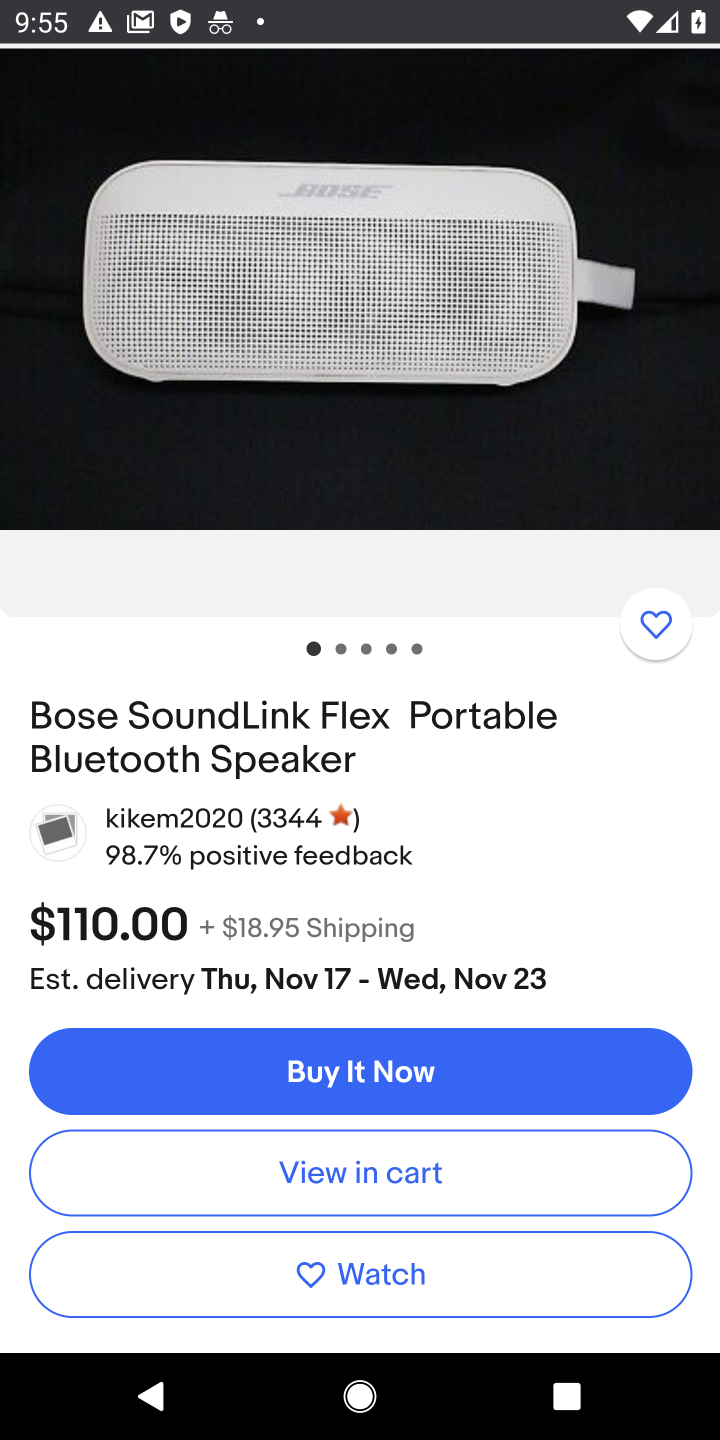
Step 31: task complete